Your task to perform on an android device: Open ESPN.com Image 0: 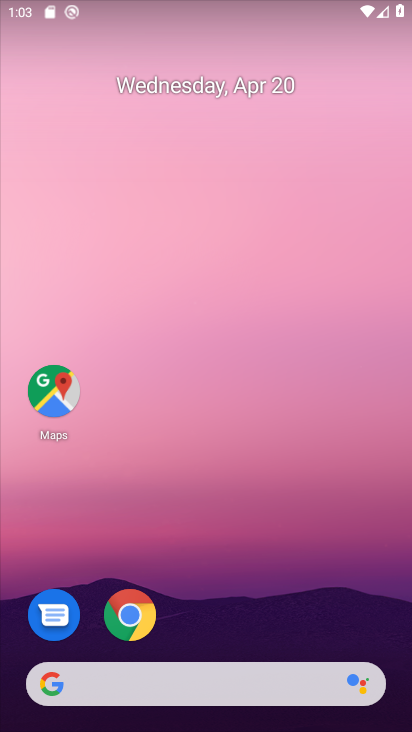
Step 0: click (136, 612)
Your task to perform on an android device: Open ESPN.com Image 1: 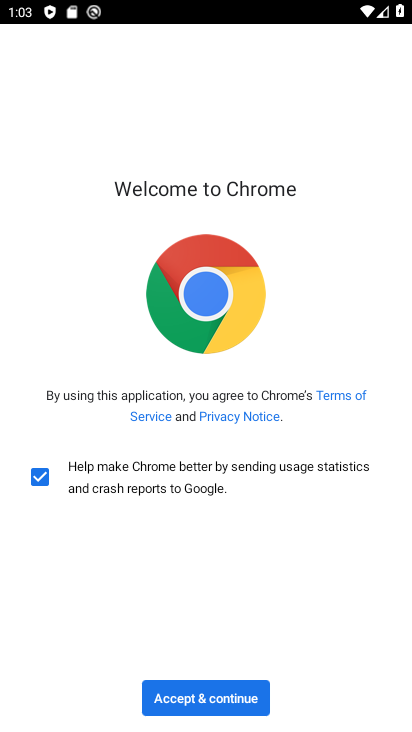
Step 1: click (226, 698)
Your task to perform on an android device: Open ESPN.com Image 2: 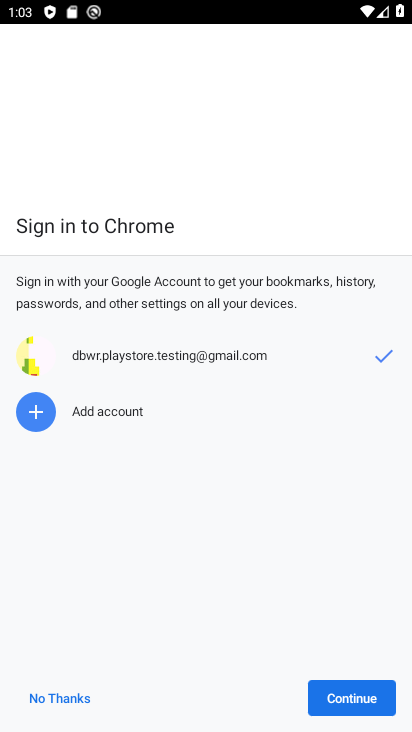
Step 2: click (35, 697)
Your task to perform on an android device: Open ESPN.com Image 3: 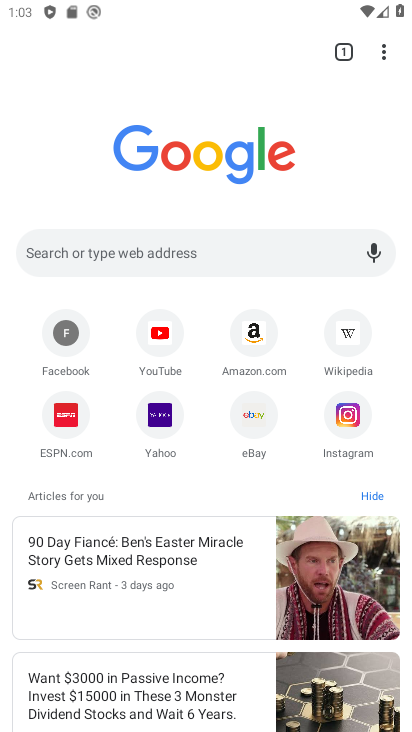
Step 3: click (54, 420)
Your task to perform on an android device: Open ESPN.com Image 4: 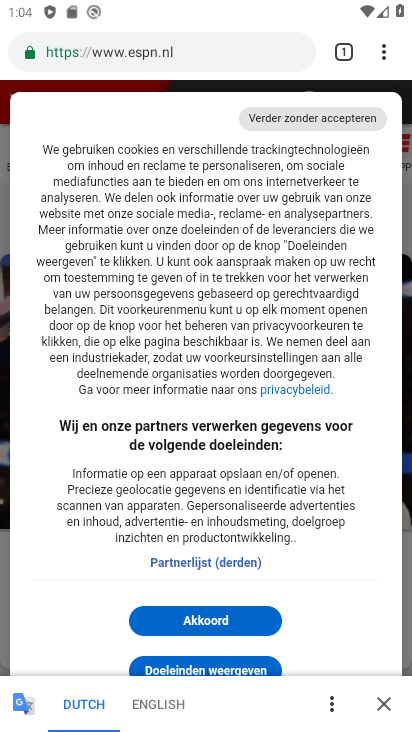
Step 4: task complete